Your task to perform on an android device: Go to Google maps Image 0: 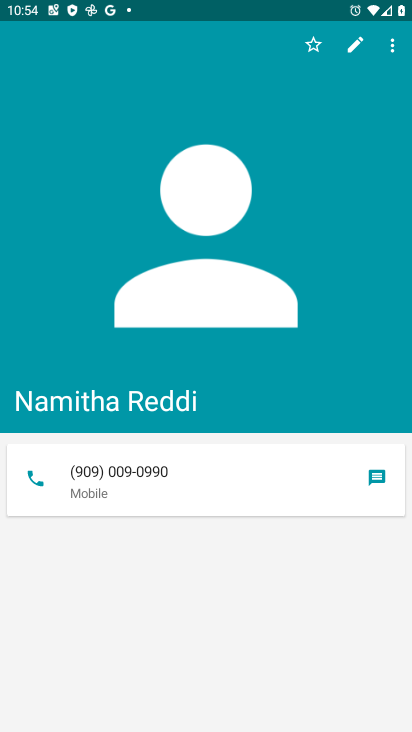
Step 0: press home button
Your task to perform on an android device: Go to Google maps Image 1: 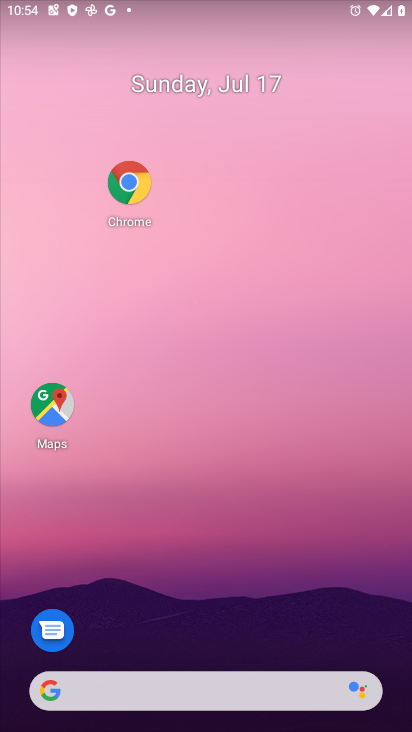
Step 1: drag from (203, 236) to (231, 12)
Your task to perform on an android device: Go to Google maps Image 2: 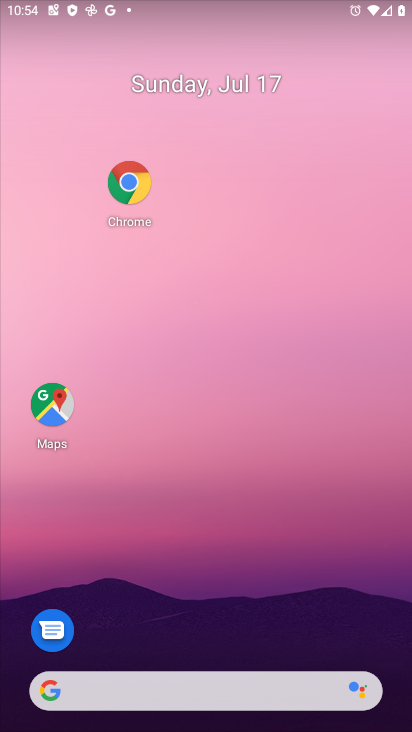
Step 2: click (59, 404)
Your task to perform on an android device: Go to Google maps Image 3: 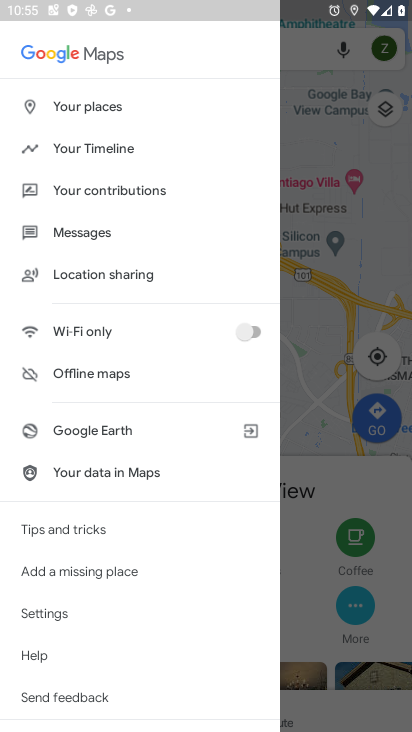
Step 3: task complete